Your task to perform on an android device: Open Youtube and go to "Your channel" Image 0: 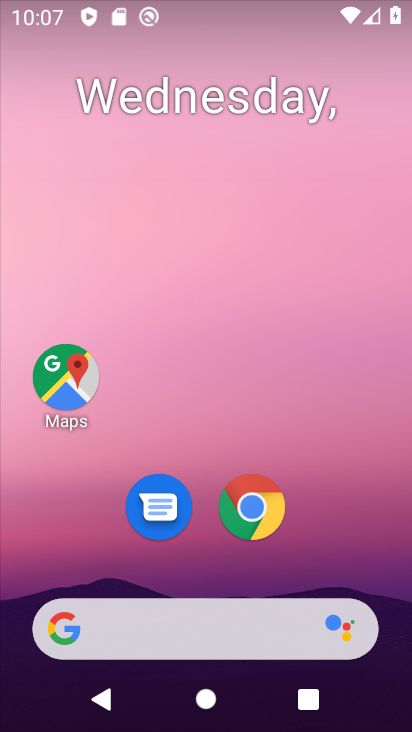
Step 0: drag from (342, 439) to (307, 206)
Your task to perform on an android device: Open Youtube and go to "Your channel" Image 1: 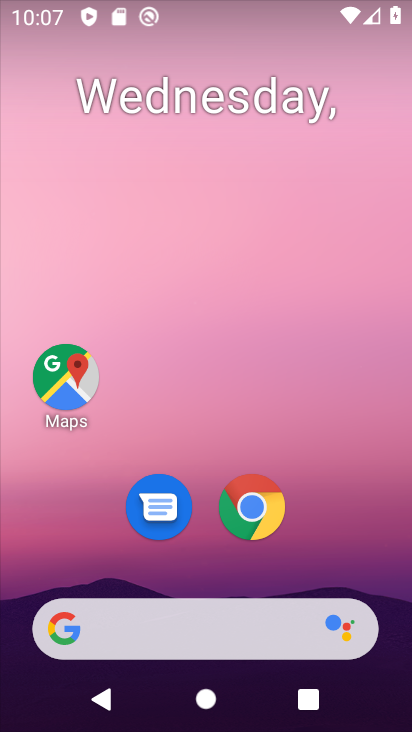
Step 1: drag from (334, 552) to (290, 206)
Your task to perform on an android device: Open Youtube and go to "Your channel" Image 2: 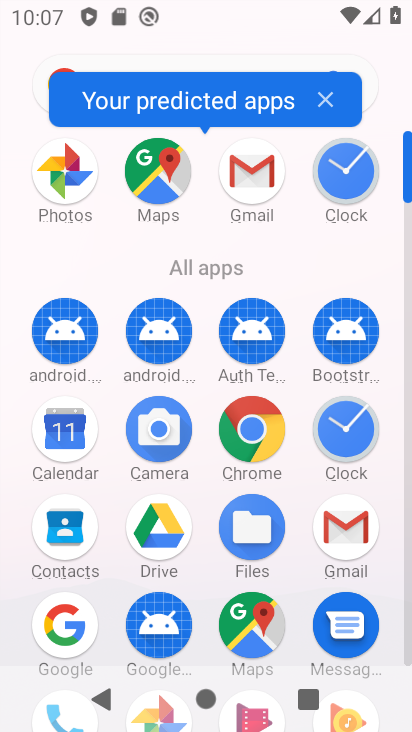
Step 2: drag from (296, 640) to (329, 224)
Your task to perform on an android device: Open Youtube and go to "Your channel" Image 3: 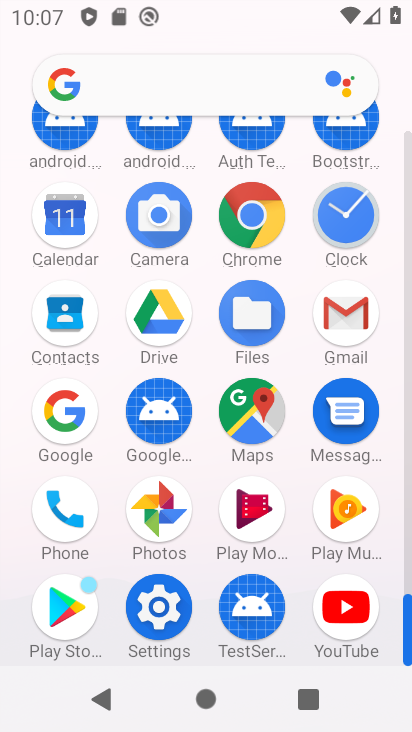
Step 3: click (346, 614)
Your task to perform on an android device: Open Youtube and go to "Your channel" Image 4: 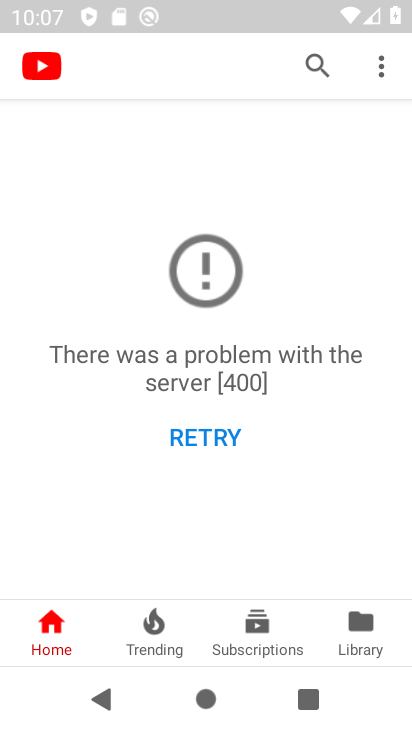
Step 4: click (287, 61)
Your task to perform on an android device: Open Youtube and go to "Your channel" Image 5: 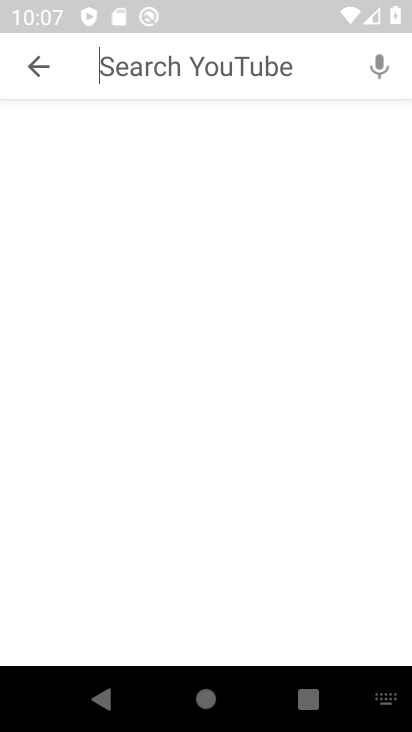
Step 5: type "india"
Your task to perform on an android device: Open Youtube and go to "Your channel" Image 6: 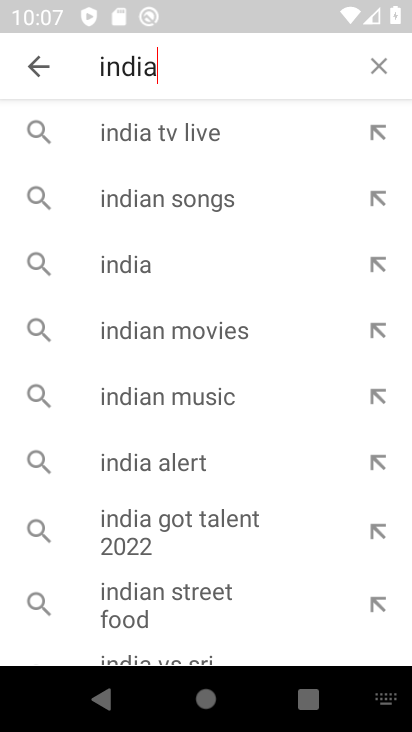
Step 6: click (205, 133)
Your task to perform on an android device: Open Youtube and go to "Your channel" Image 7: 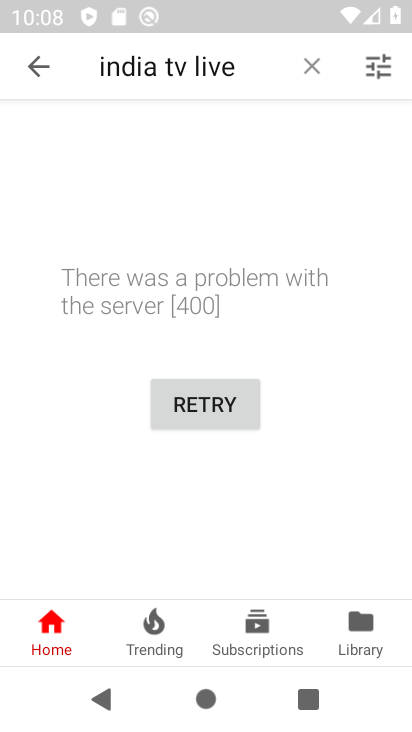
Step 7: task complete